Your task to perform on an android device: Open Youtube and go to the subscriptions tab Image 0: 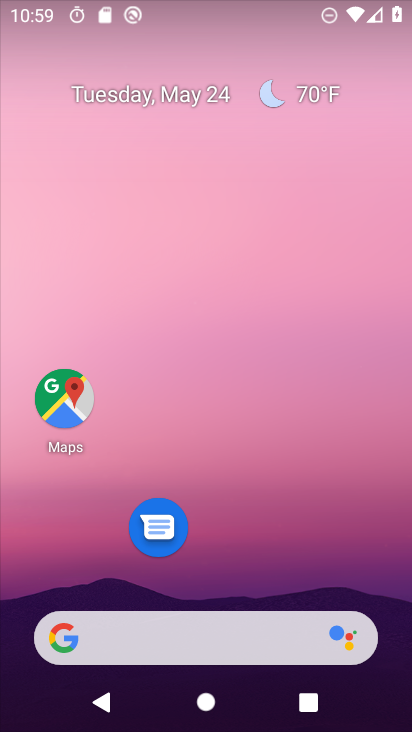
Step 0: drag from (267, 532) to (285, 96)
Your task to perform on an android device: Open Youtube and go to the subscriptions tab Image 1: 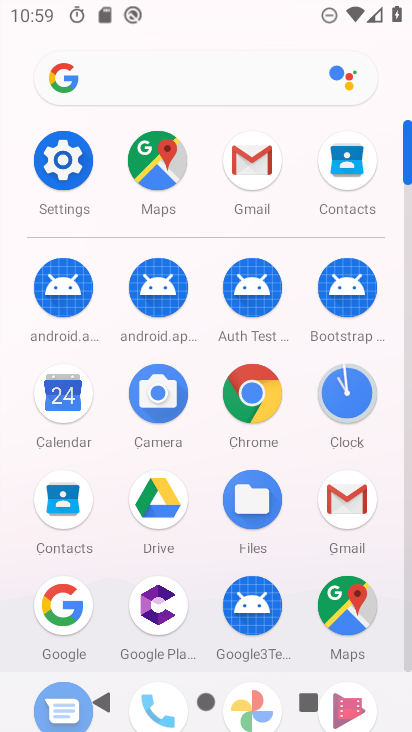
Step 1: drag from (295, 551) to (305, 114)
Your task to perform on an android device: Open Youtube and go to the subscriptions tab Image 2: 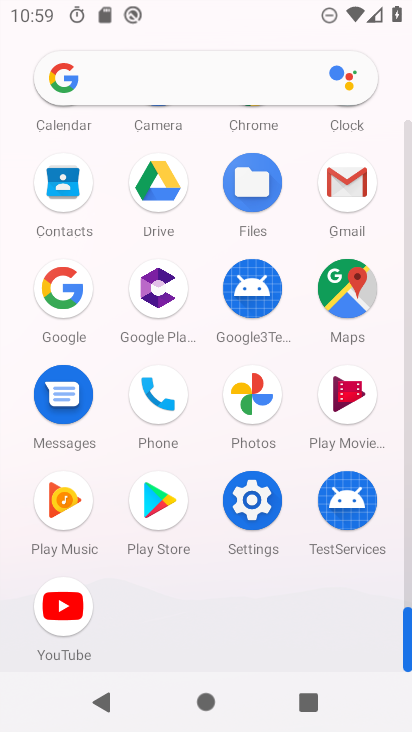
Step 2: click (61, 614)
Your task to perform on an android device: Open Youtube and go to the subscriptions tab Image 3: 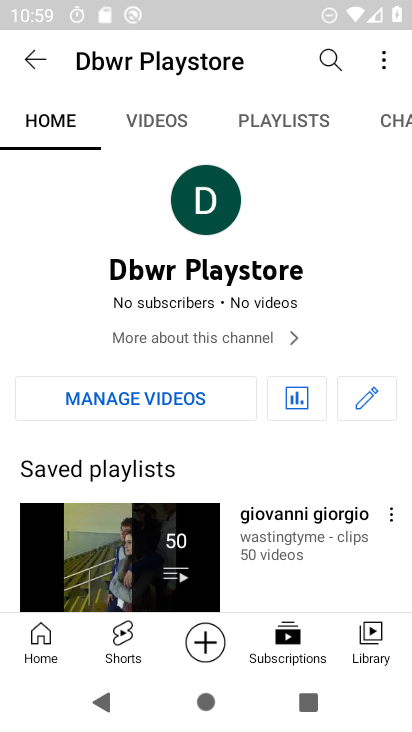
Step 3: task complete